Your task to perform on an android device: Open Chrome and go to settings Image 0: 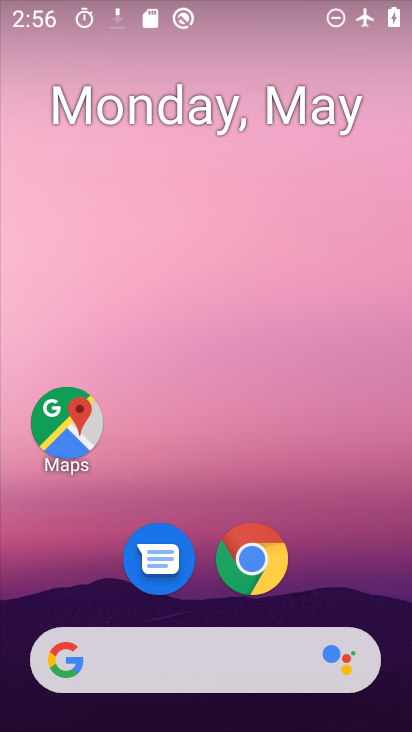
Step 0: drag from (295, 303) to (383, 13)
Your task to perform on an android device: Open Chrome and go to settings Image 1: 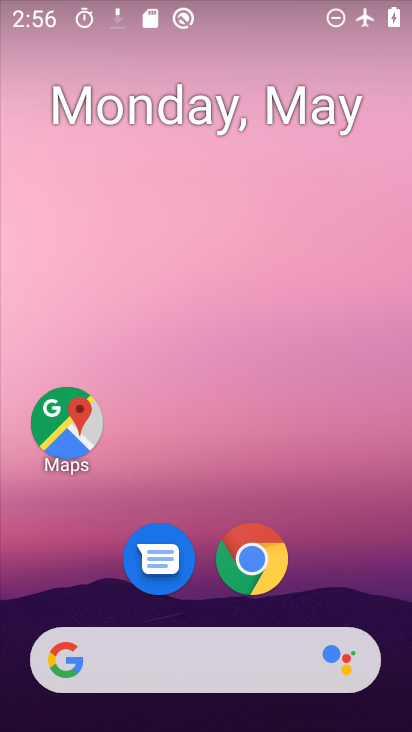
Step 1: drag from (205, 585) to (210, 18)
Your task to perform on an android device: Open Chrome and go to settings Image 2: 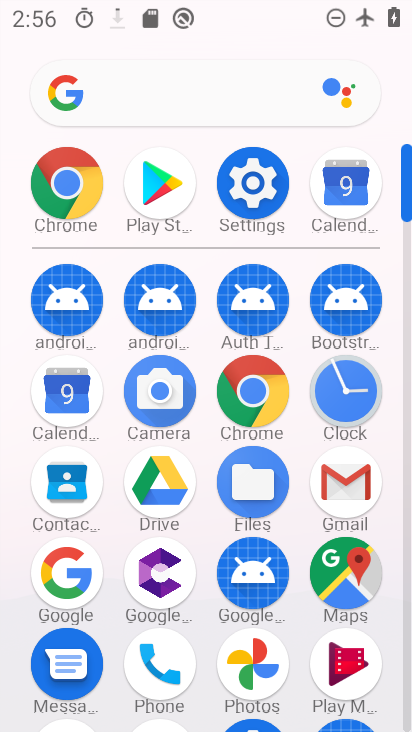
Step 2: click (249, 198)
Your task to perform on an android device: Open Chrome and go to settings Image 3: 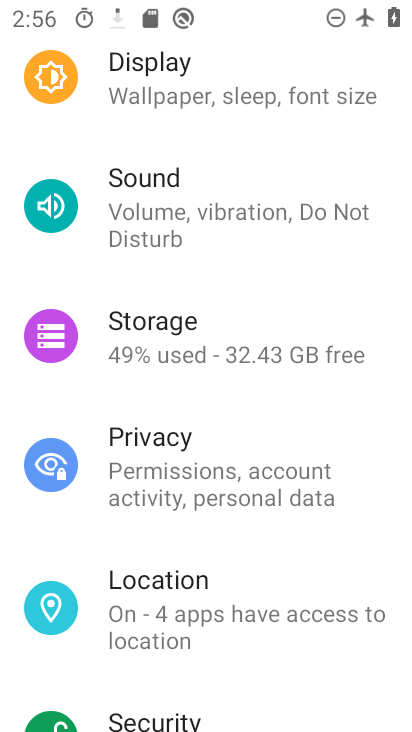
Step 3: click (263, 354)
Your task to perform on an android device: Open Chrome and go to settings Image 4: 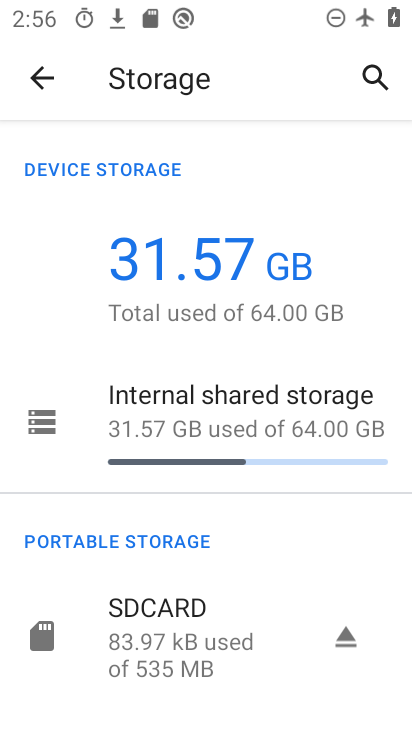
Step 4: drag from (184, 575) to (199, 232)
Your task to perform on an android device: Open Chrome and go to settings Image 5: 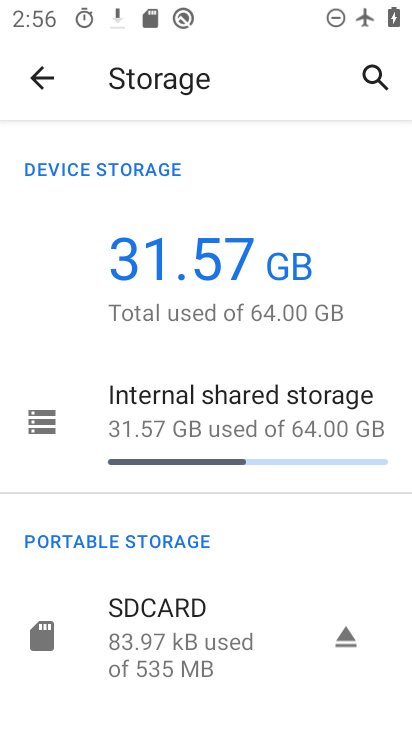
Step 5: press home button
Your task to perform on an android device: Open Chrome and go to settings Image 6: 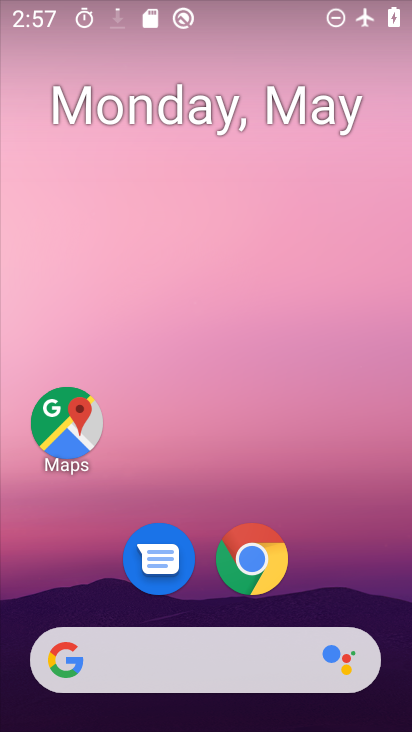
Step 6: drag from (190, 598) to (199, 461)
Your task to perform on an android device: Open Chrome and go to settings Image 7: 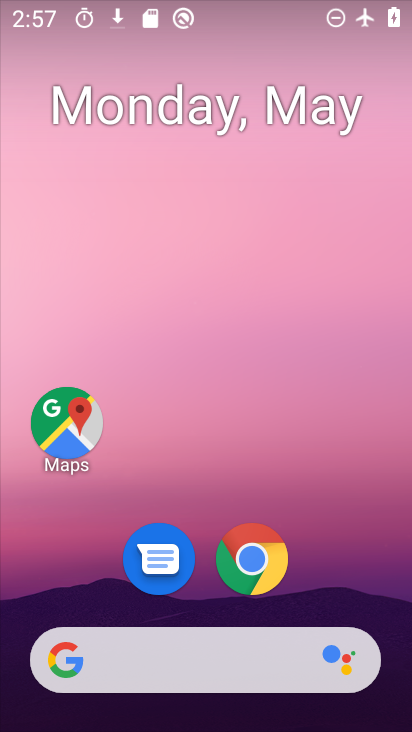
Step 7: drag from (201, 563) to (275, 75)
Your task to perform on an android device: Open Chrome and go to settings Image 8: 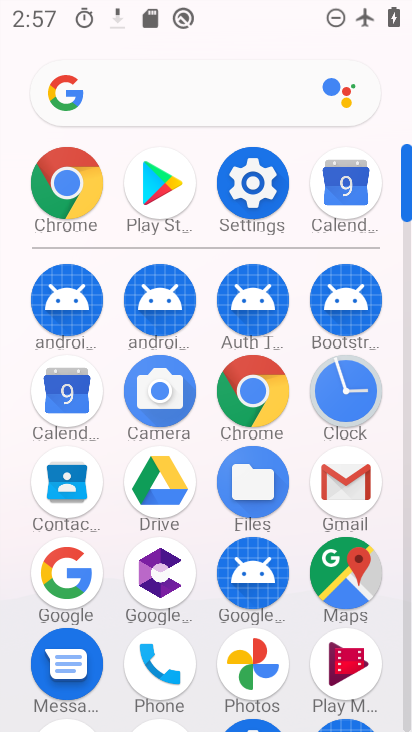
Step 8: click (249, 391)
Your task to perform on an android device: Open Chrome and go to settings Image 9: 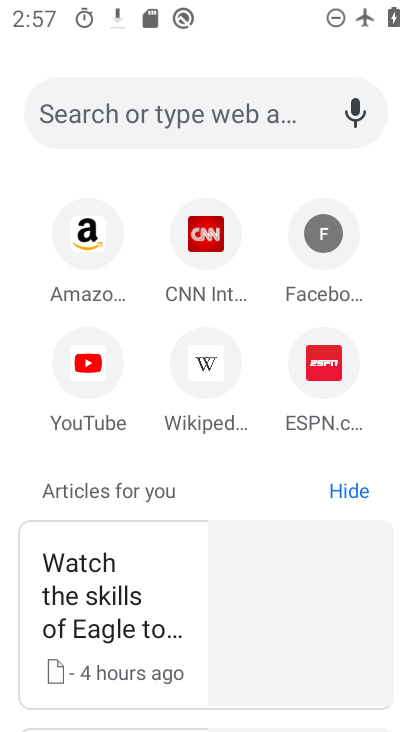
Step 9: drag from (250, 585) to (318, 259)
Your task to perform on an android device: Open Chrome and go to settings Image 10: 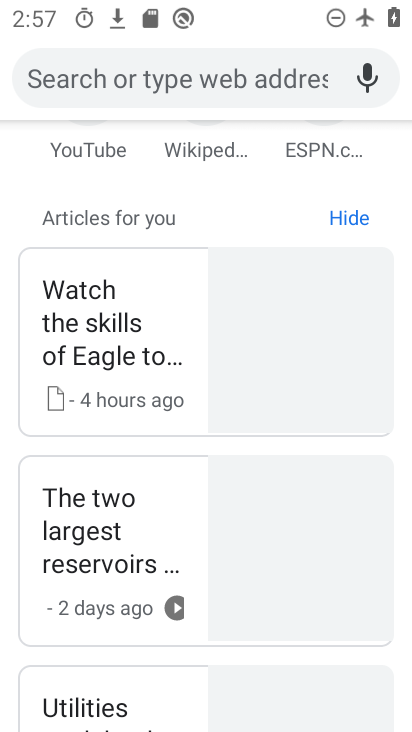
Step 10: drag from (278, 295) to (323, 635)
Your task to perform on an android device: Open Chrome and go to settings Image 11: 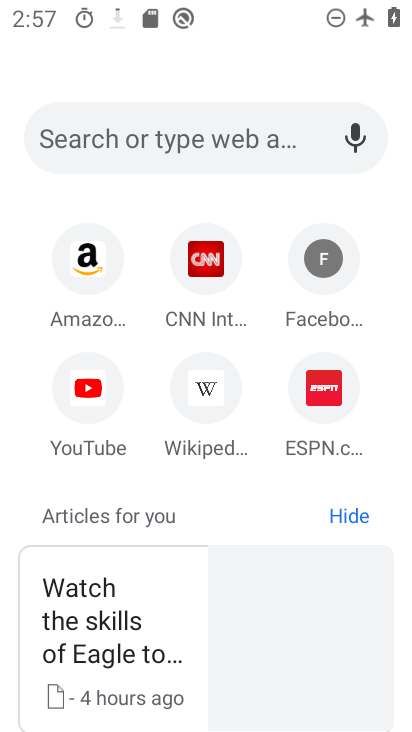
Step 11: drag from (264, 86) to (282, 600)
Your task to perform on an android device: Open Chrome and go to settings Image 12: 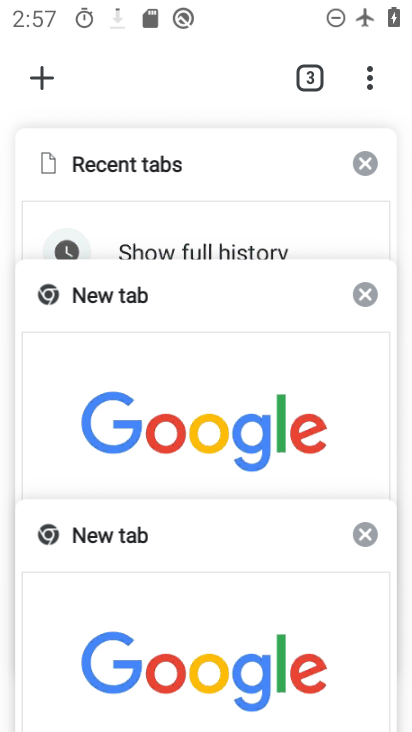
Step 12: click (226, 323)
Your task to perform on an android device: Open Chrome and go to settings Image 13: 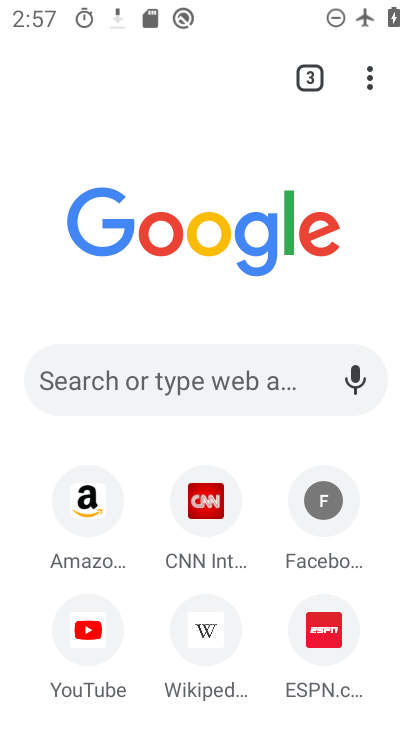
Step 13: click (368, 87)
Your task to perform on an android device: Open Chrome and go to settings Image 14: 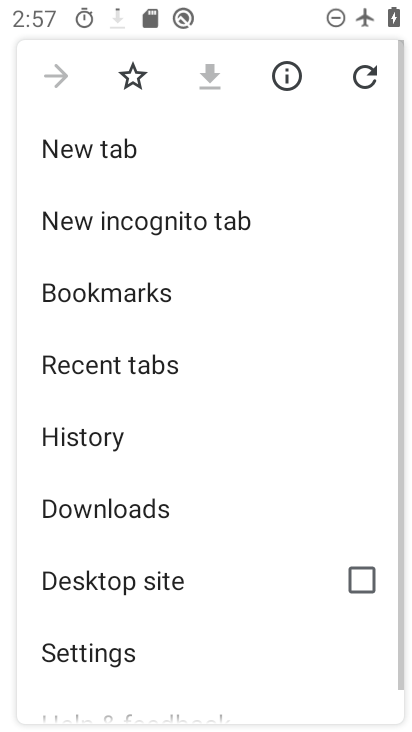
Step 14: drag from (229, 427) to (373, 107)
Your task to perform on an android device: Open Chrome and go to settings Image 15: 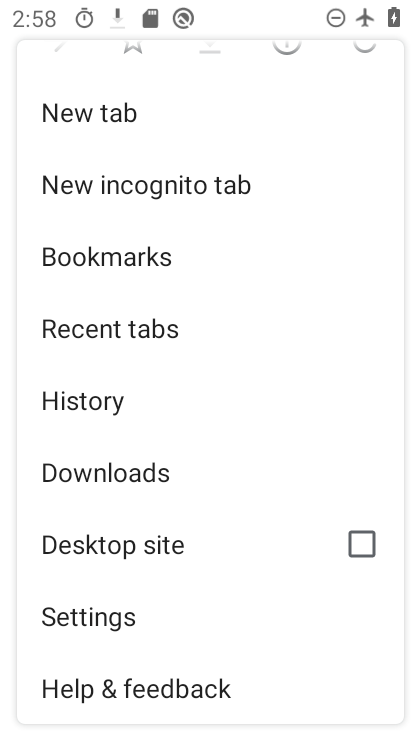
Step 15: click (119, 616)
Your task to perform on an android device: Open Chrome and go to settings Image 16: 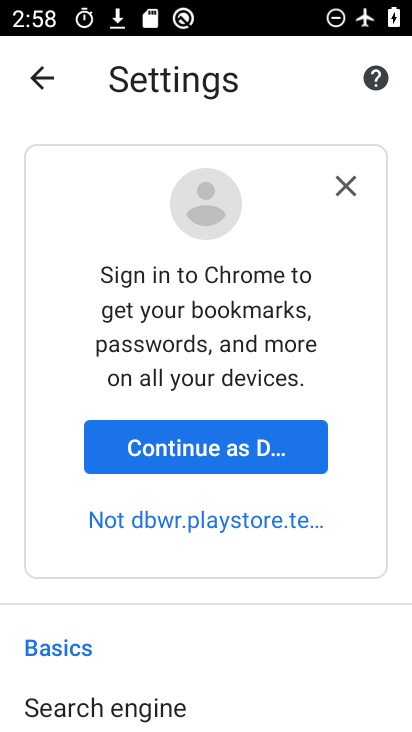
Step 16: task complete